Your task to perform on an android device: Open the calendar app, open the side menu, and click the "Day" option Image 0: 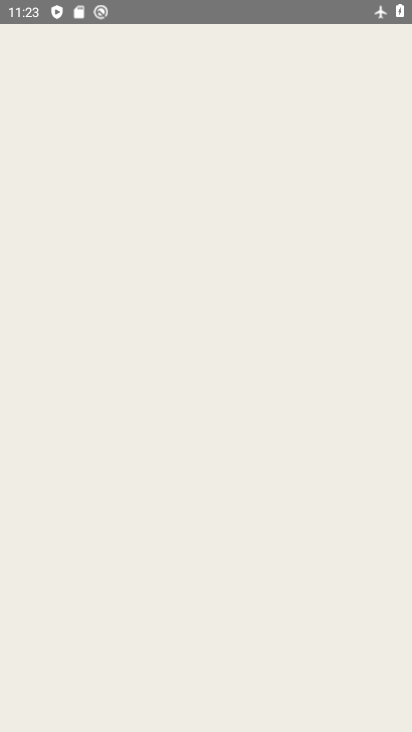
Step 0: click (131, 611)
Your task to perform on an android device: Open the calendar app, open the side menu, and click the "Day" option Image 1: 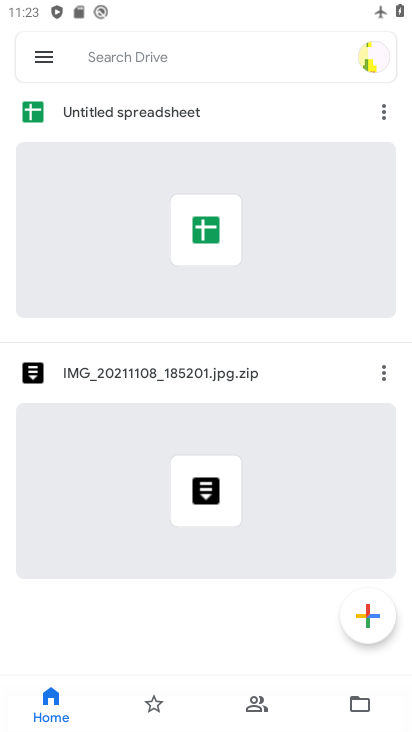
Step 1: press home button
Your task to perform on an android device: Open the calendar app, open the side menu, and click the "Day" option Image 2: 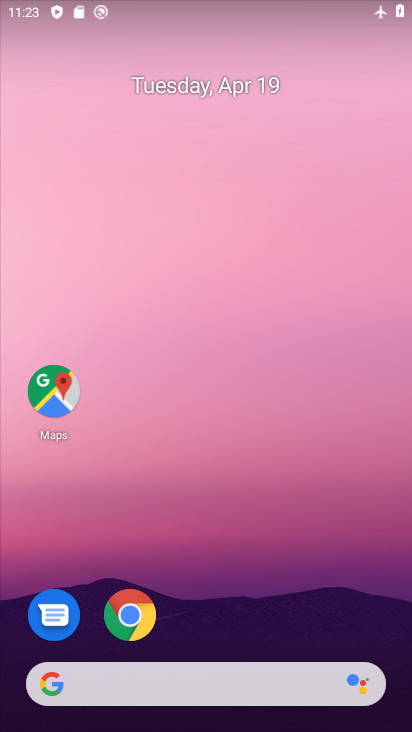
Step 2: drag from (106, 505) to (43, 86)
Your task to perform on an android device: Open the calendar app, open the side menu, and click the "Day" option Image 3: 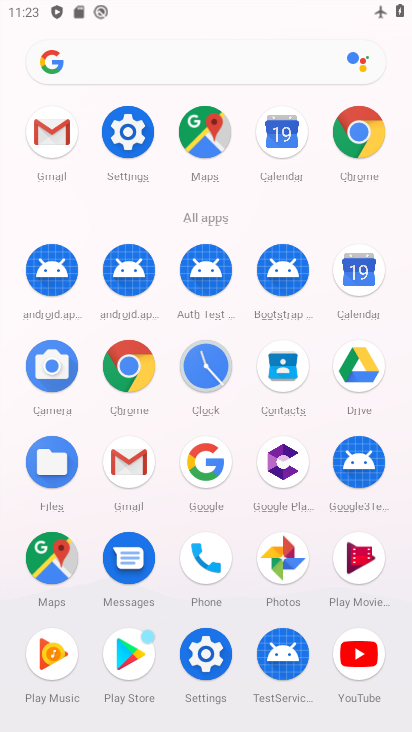
Step 3: click (346, 277)
Your task to perform on an android device: Open the calendar app, open the side menu, and click the "Day" option Image 4: 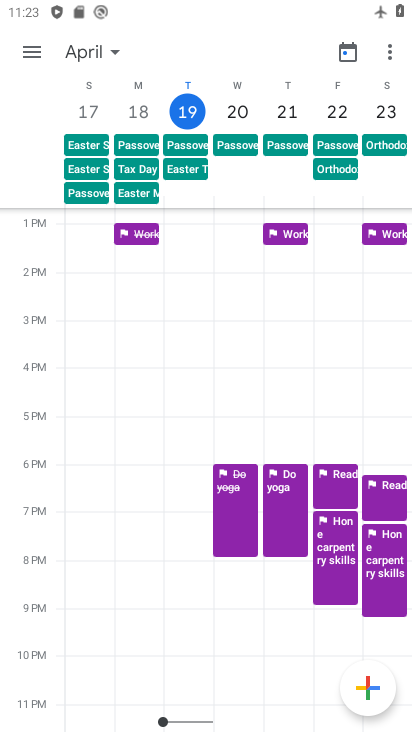
Step 4: click (32, 49)
Your task to perform on an android device: Open the calendar app, open the side menu, and click the "Day" option Image 5: 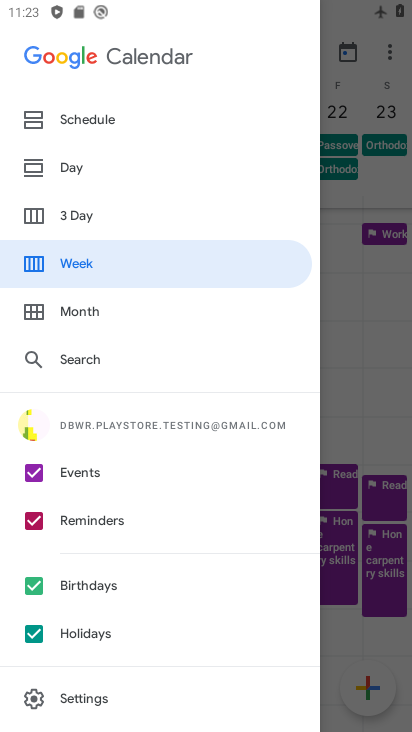
Step 5: click (64, 176)
Your task to perform on an android device: Open the calendar app, open the side menu, and click the "Day" option Image 6: 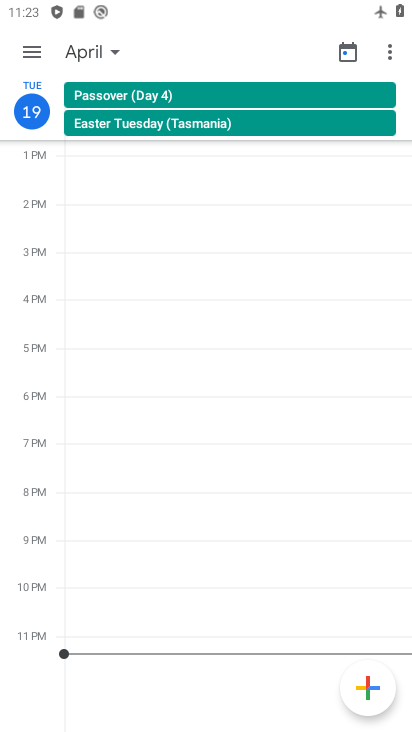
Step 6: task complete